Your task to perform on an android device: change your default location settings in chrome Image 0: 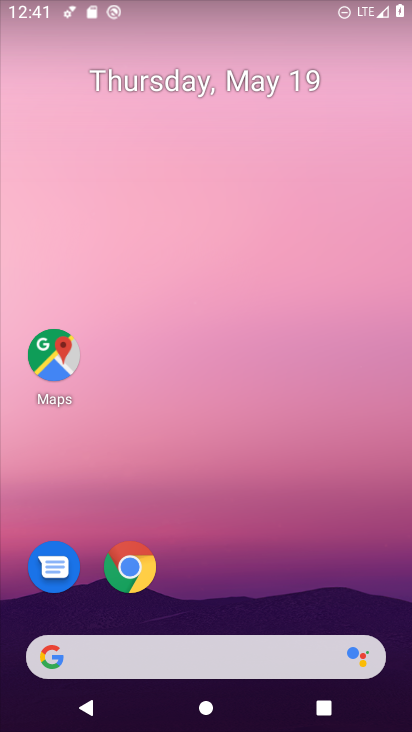
Step 0: click (136, 563)
Your task to perform on an android device: change your default location settings in chrome Image 1: 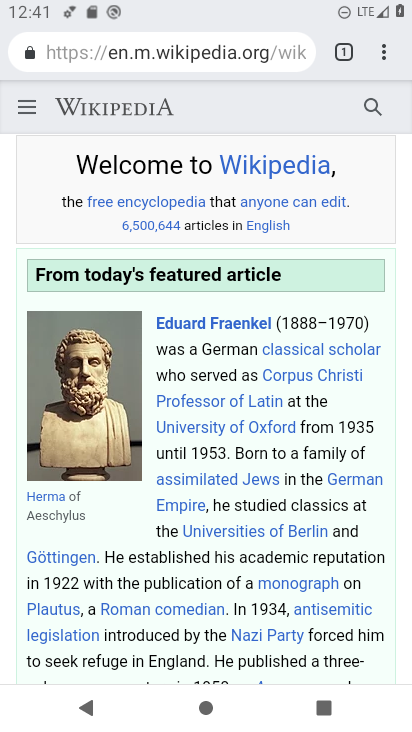
Step 1: click (379, 50)
Your task to perform on an android device: change your default location settings in chrome Image 2: 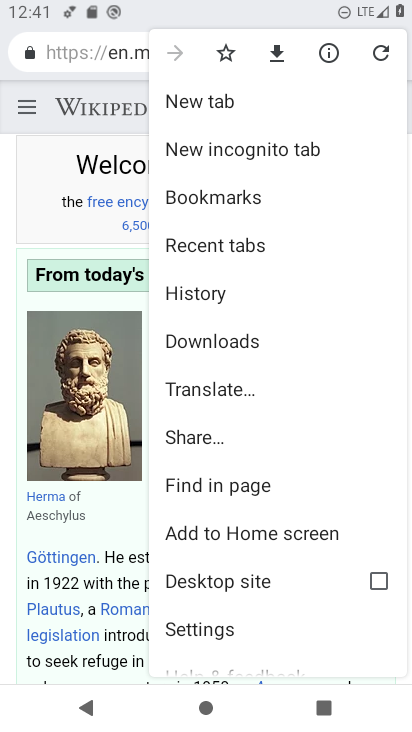
Step 2: click (233, 625)
Your task to perform on an android device: change your default location settings in chrome Image 3: 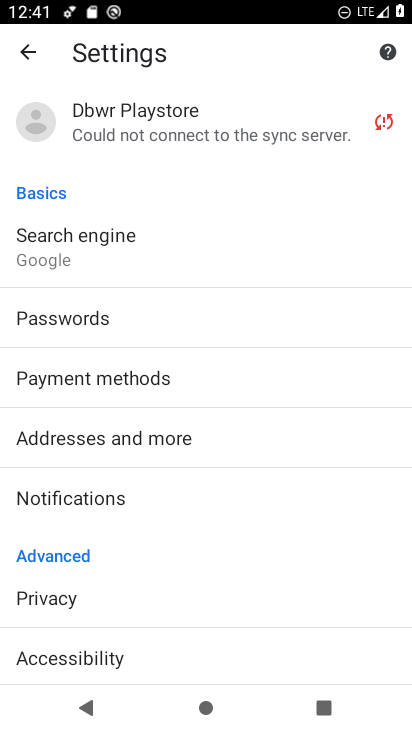
Step 3: drag from (233, 606) to (224, 380)
Your task to perform on an android device: change your default location settings in chrome Image 4: 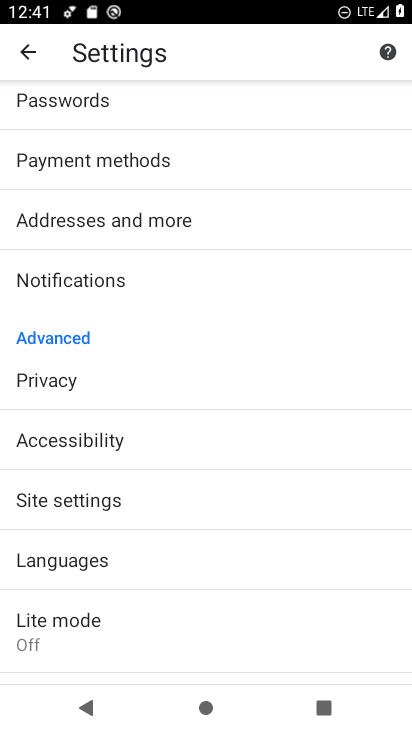
Step 4: click (202, 494)
Your task to perform on an android device: change your default location settings in chrome Image 5: 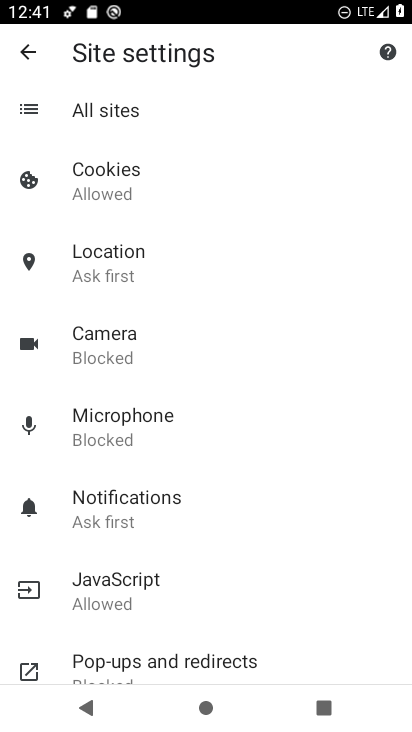
Step 5: click (168, 252)
Your task to perform on an android device: change your default location settings in chrome Image 6: 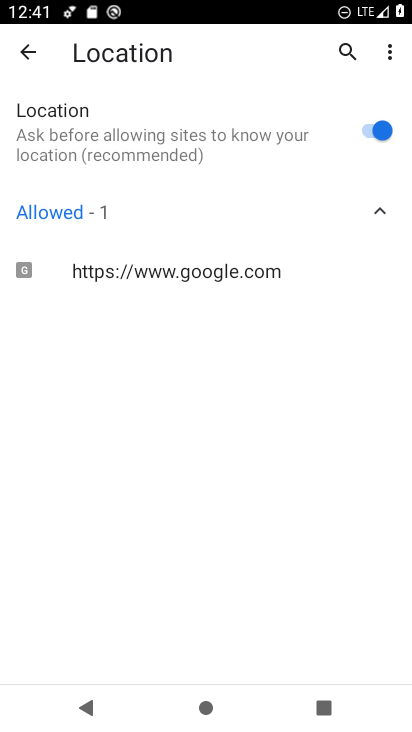
Step 6: click (358, 121)
Your task to perform on an android device: change your default location settings in chrome Image 7: 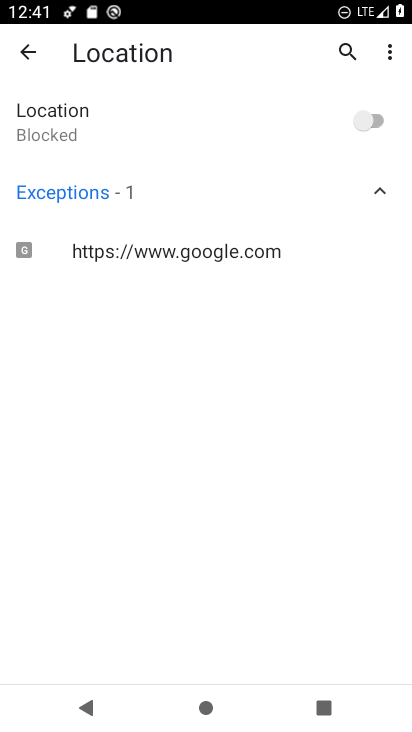
Step 7: task complete